Your task to perform on an android device: open sync settings in chrome Image 0: 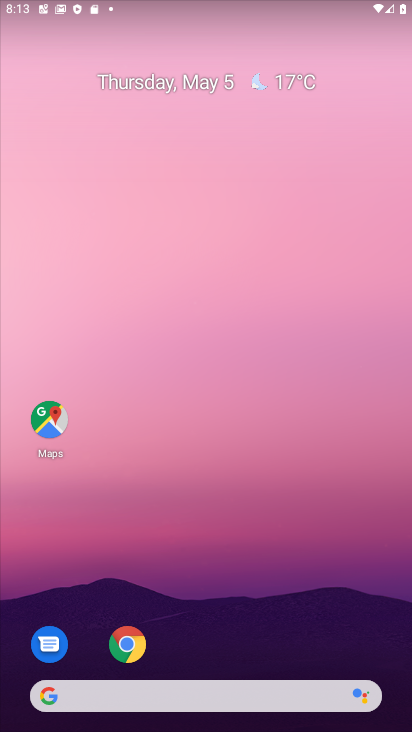
Step 0: click (126, 656)
Your task to perform on an android device: open sync settings in chrome Image 1: 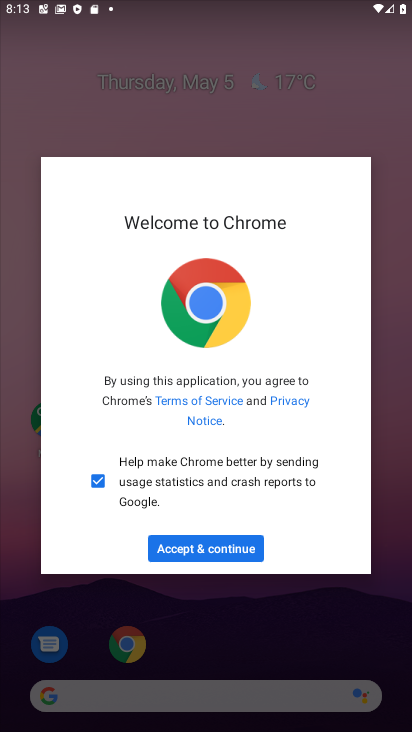
Step 1: click (206, 550)
Your task to perform on an android device: open sync settings in chrome Image 2: 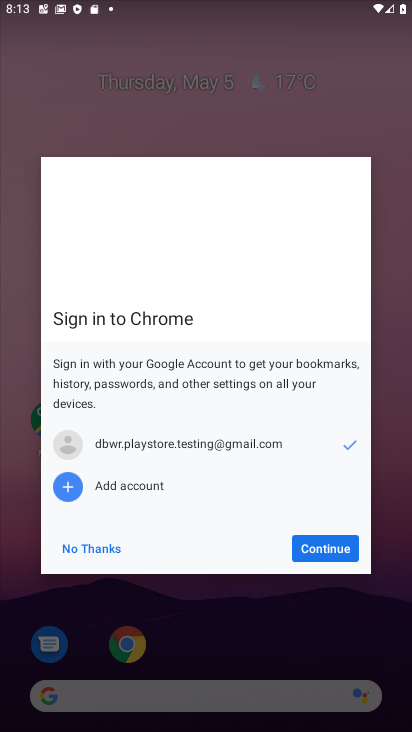
Step 2: click (319, 540)
Your task to perform on an android device: open sync settings in chrome Image 3: 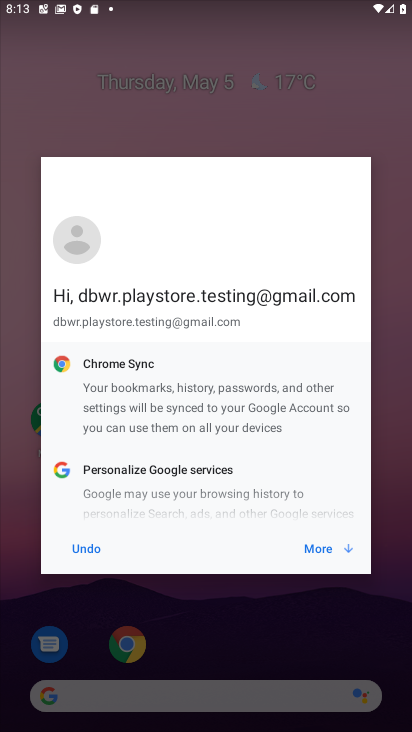
Step 3: click (319, 540)
Your task to perform on an android device: open sync settings in chrome Image 4: 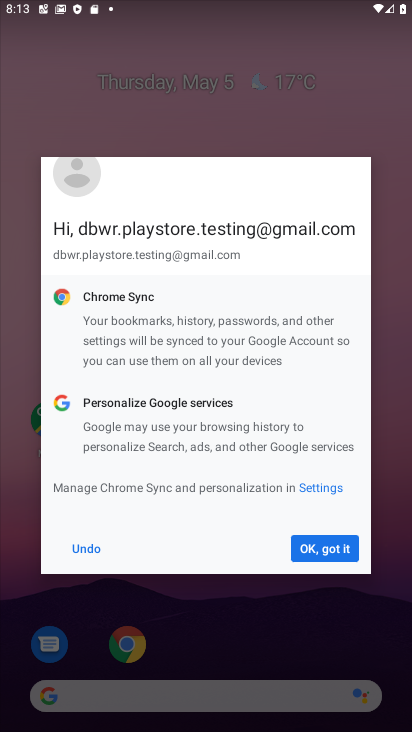
Step 4: click (319, 540)
Your task to perform on an android device: open sync settings in chrome Image 5: 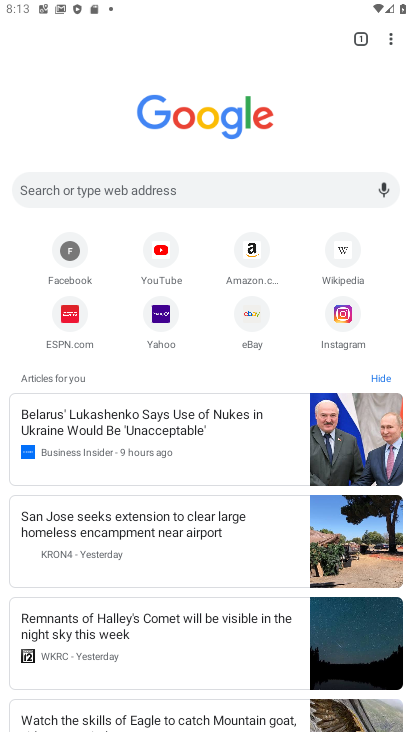
Step 5: click (391, 36)
Your task to perform on an android device: open sync settings in chrome Image 6: 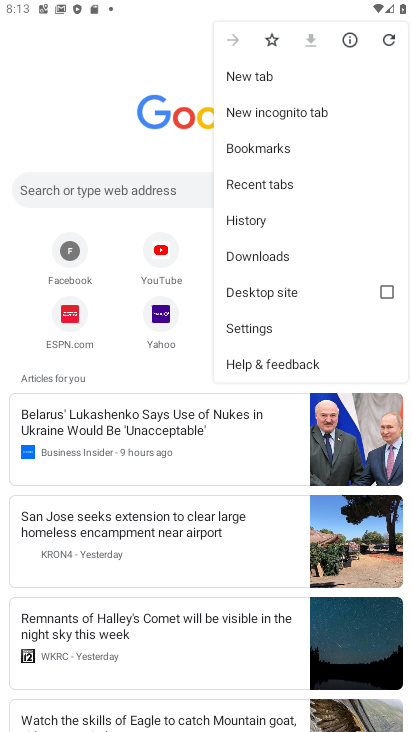
Step 6: click (298, 342)
Your task to perform on an android device: open sync settings in chrome Image 7: 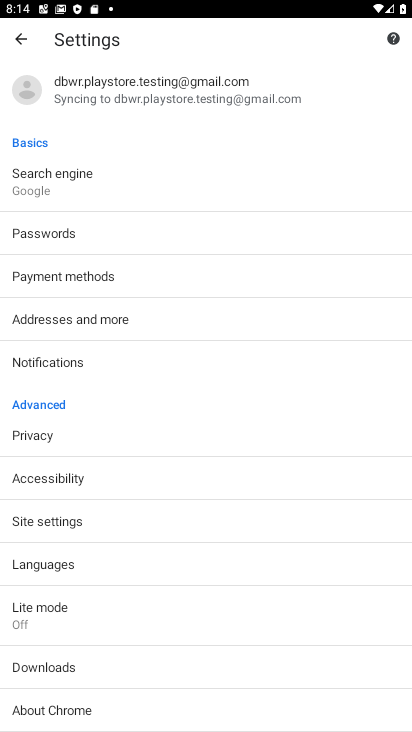
Step 7: click (172, 97)
Your task to perform on an android device: open sync settings in chrome Image 8: 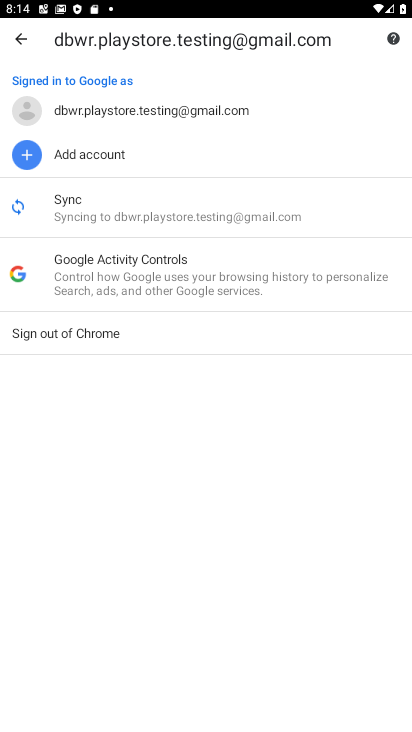
Step 8: click (166, 211)
Your task to perform on an android device: open sync settings in chrome Image 9: 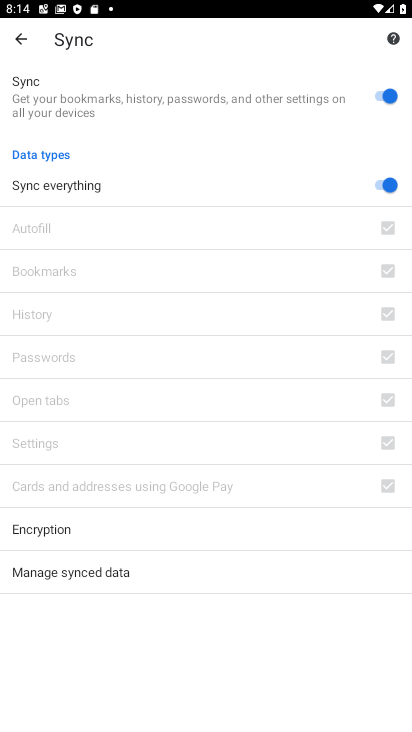
Step 9: task complete